Your task to perform on an android device: open device folders in google photos Image 0: 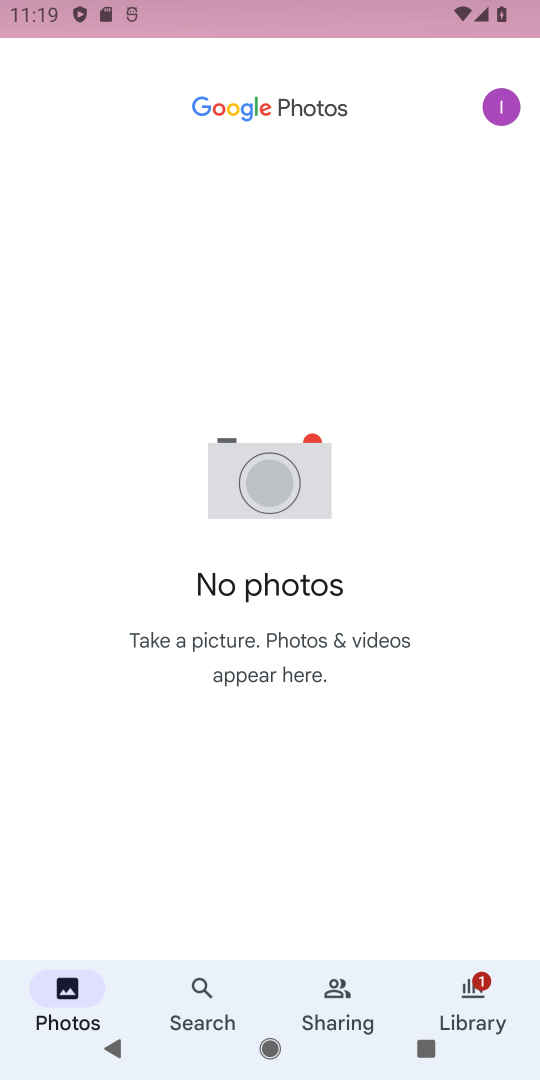
Step 0: press home button
Your task to perform on an android device: open device folders in google photos Image 1: 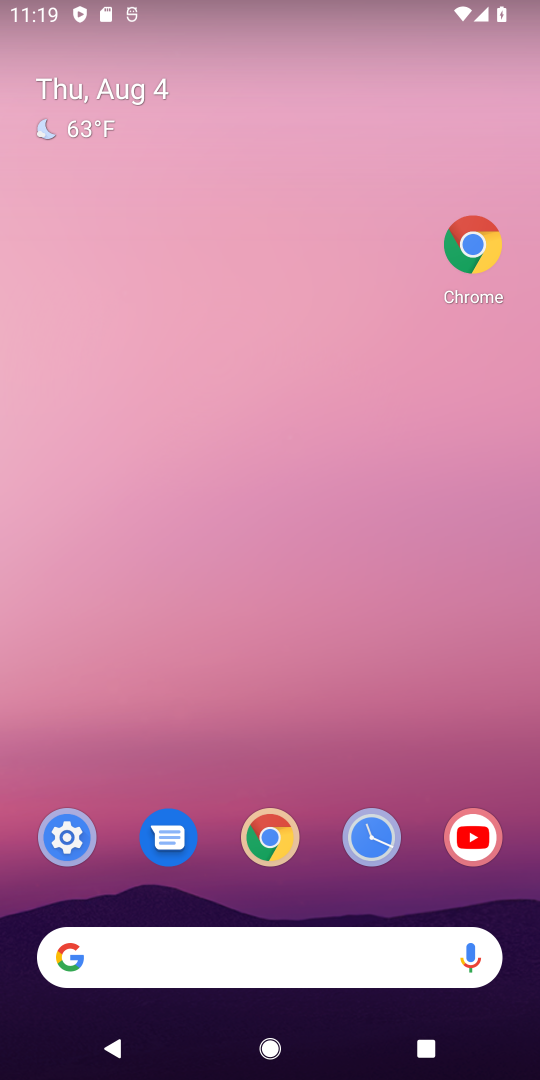
Step 1: drag from (307, 901) to (291, 60)
Your task to perform on an android device: open device folders in google photos Image 2: 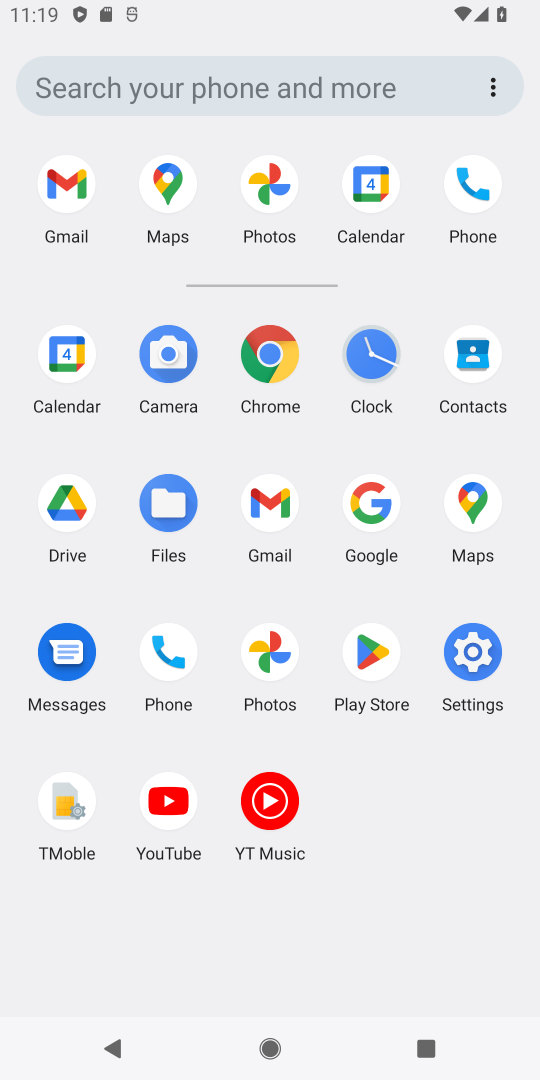
Step 2: click (271, 647)
Your task to perform on an android device: open device folders in google photos Image 3: 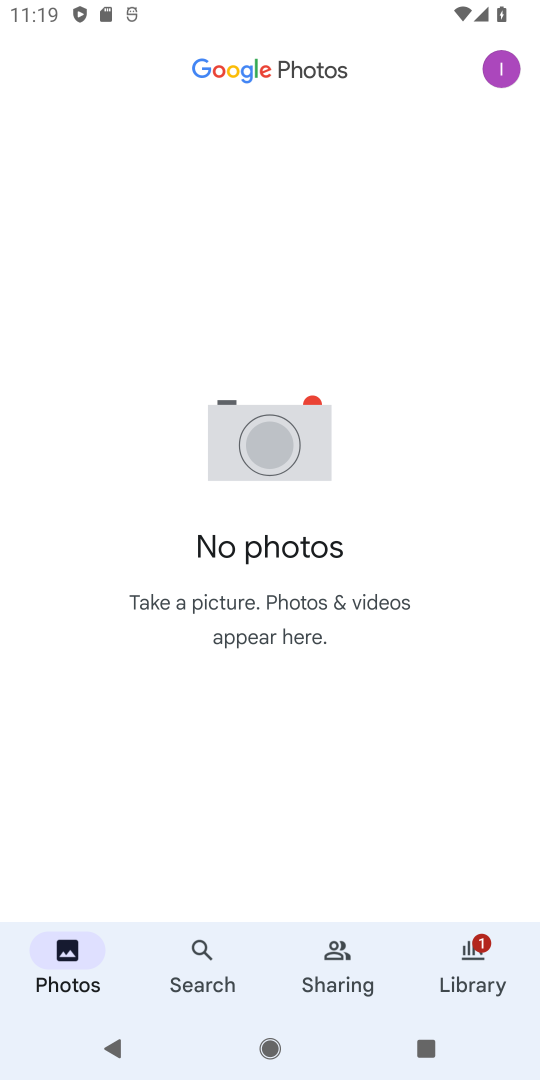
Step 3: click (196, 957)
Your task to perform on an android device: open device folders in google photos Image 4: 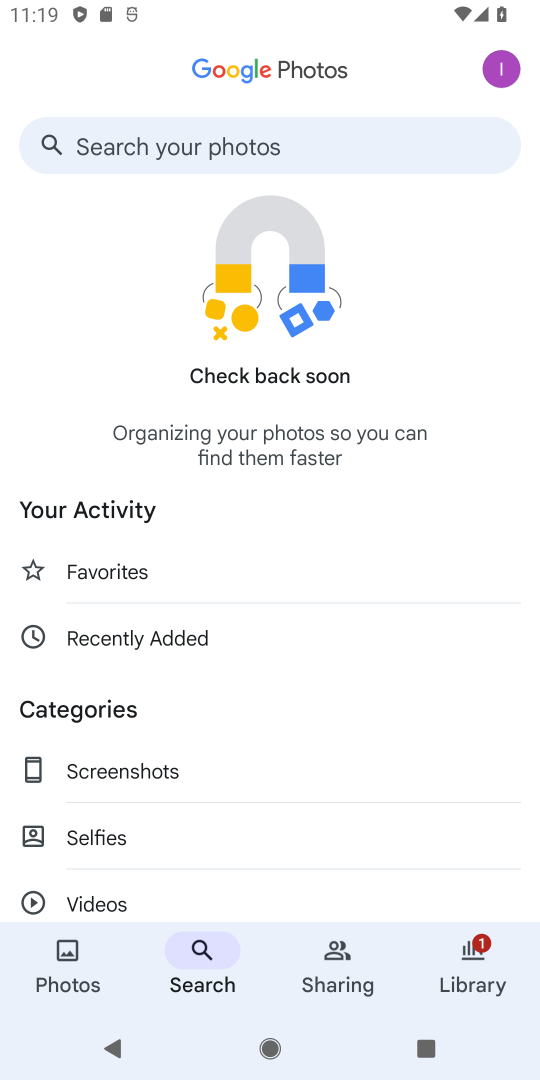
Step 4: click (142, 142)
Your task to perform on an android device: open device folders in google photos Image 5: 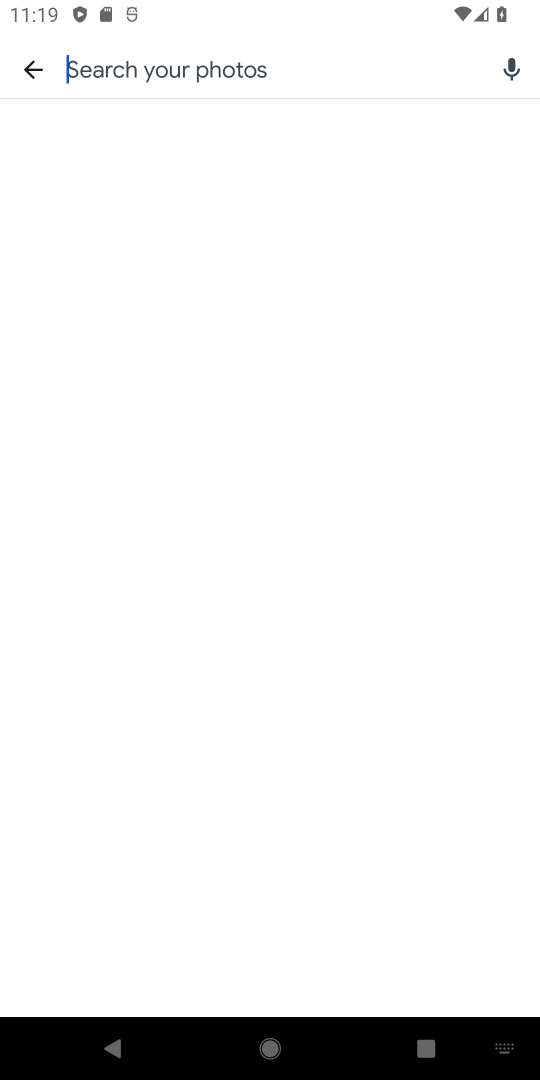
Step 5: type "device"
Your task to perform on an android device: open device folders in google photos Image 6: 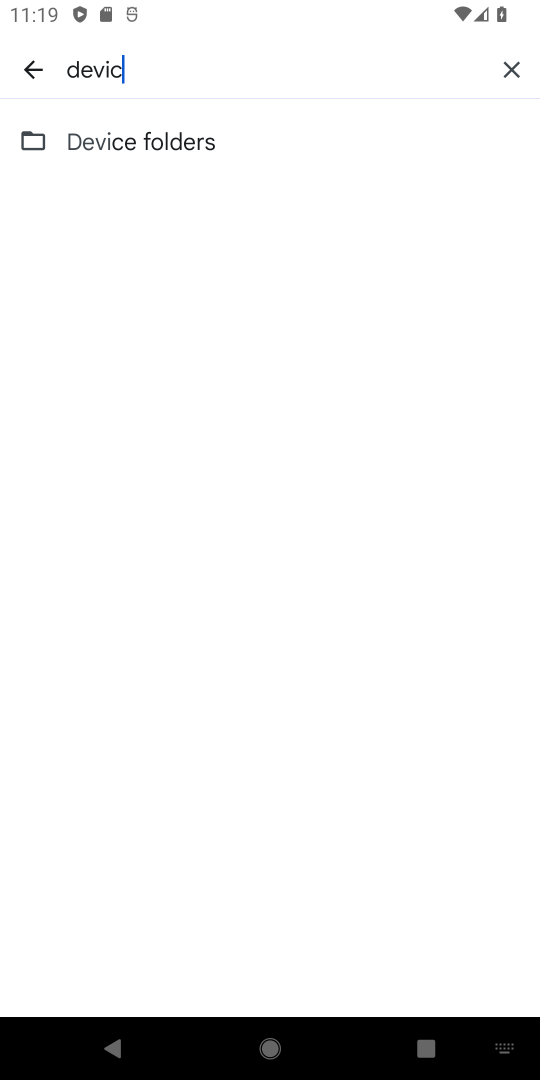
Step 6: type ""
Your task to perform on an android device: open device folders in google photos Image 7: 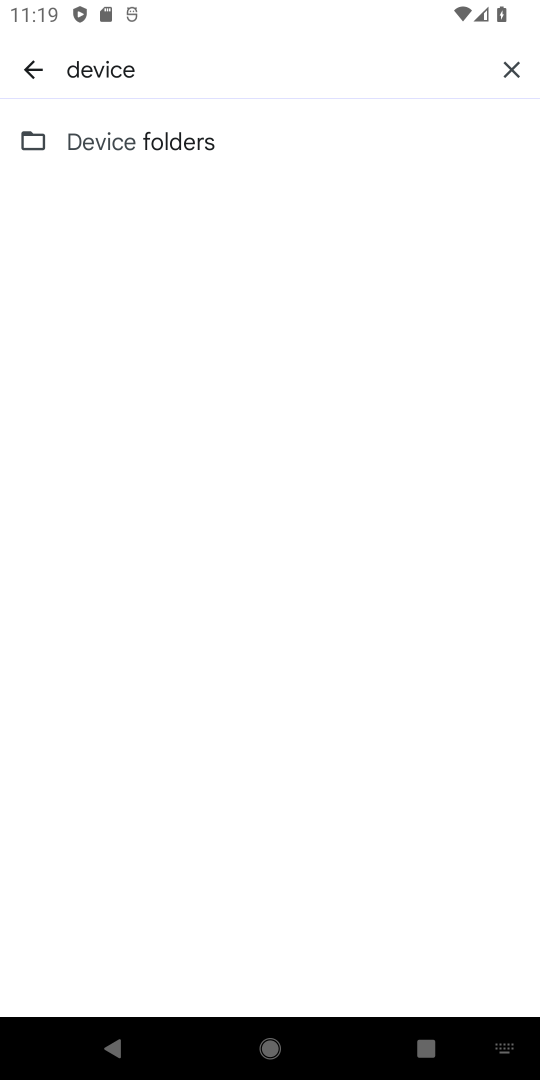
Step 7: click (161, 136)
Your task to perform on an android device: open device folders in google photos Image 8: 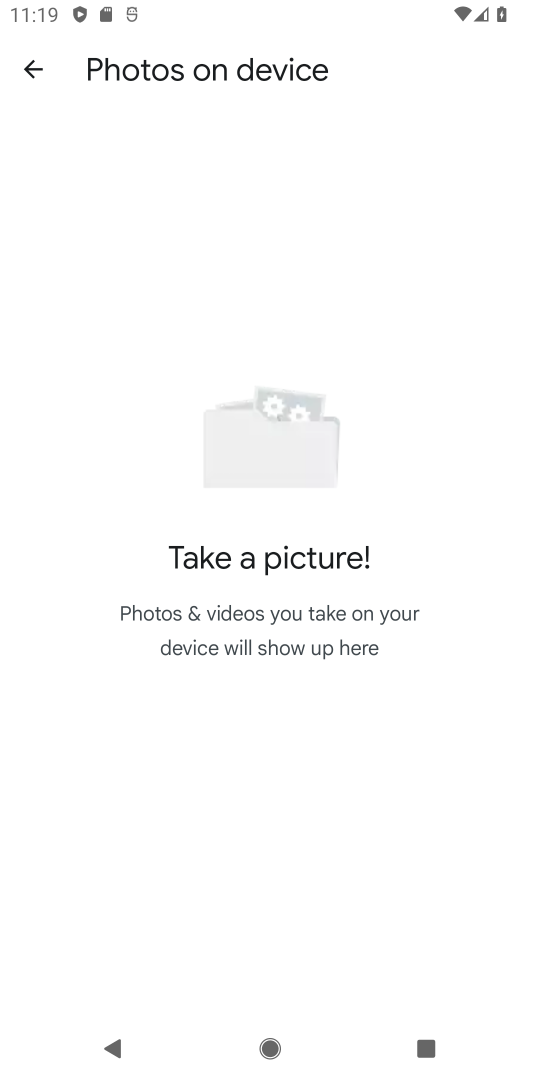
Step 8: task complete